Your task to perform on an android device: Add razer kraken to the cart on ebay.com, then select checkout. Image 0: 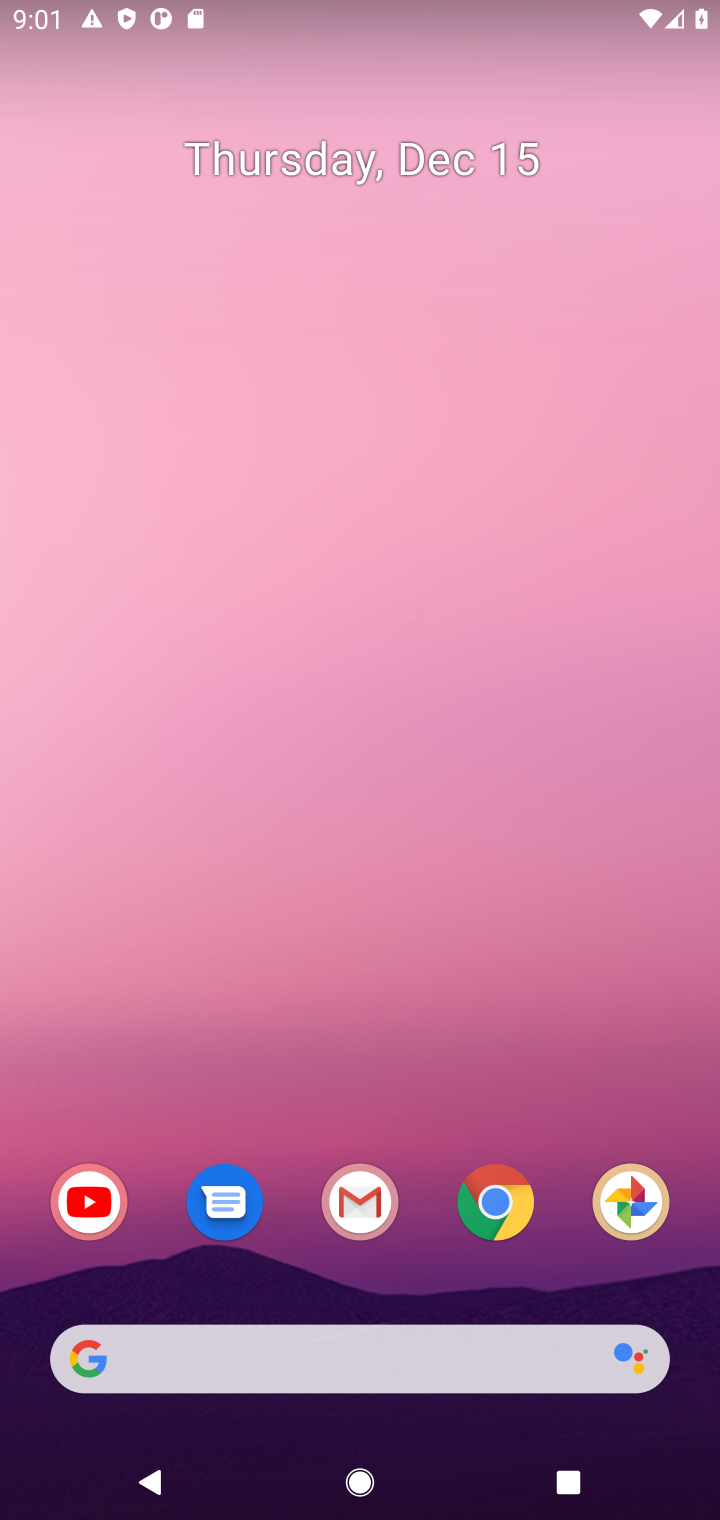
Step 0: click (479, 1212)
Your task to perform on an android device: Add razer kraken to the cart on ebay.com, then select checkout. Image 1: 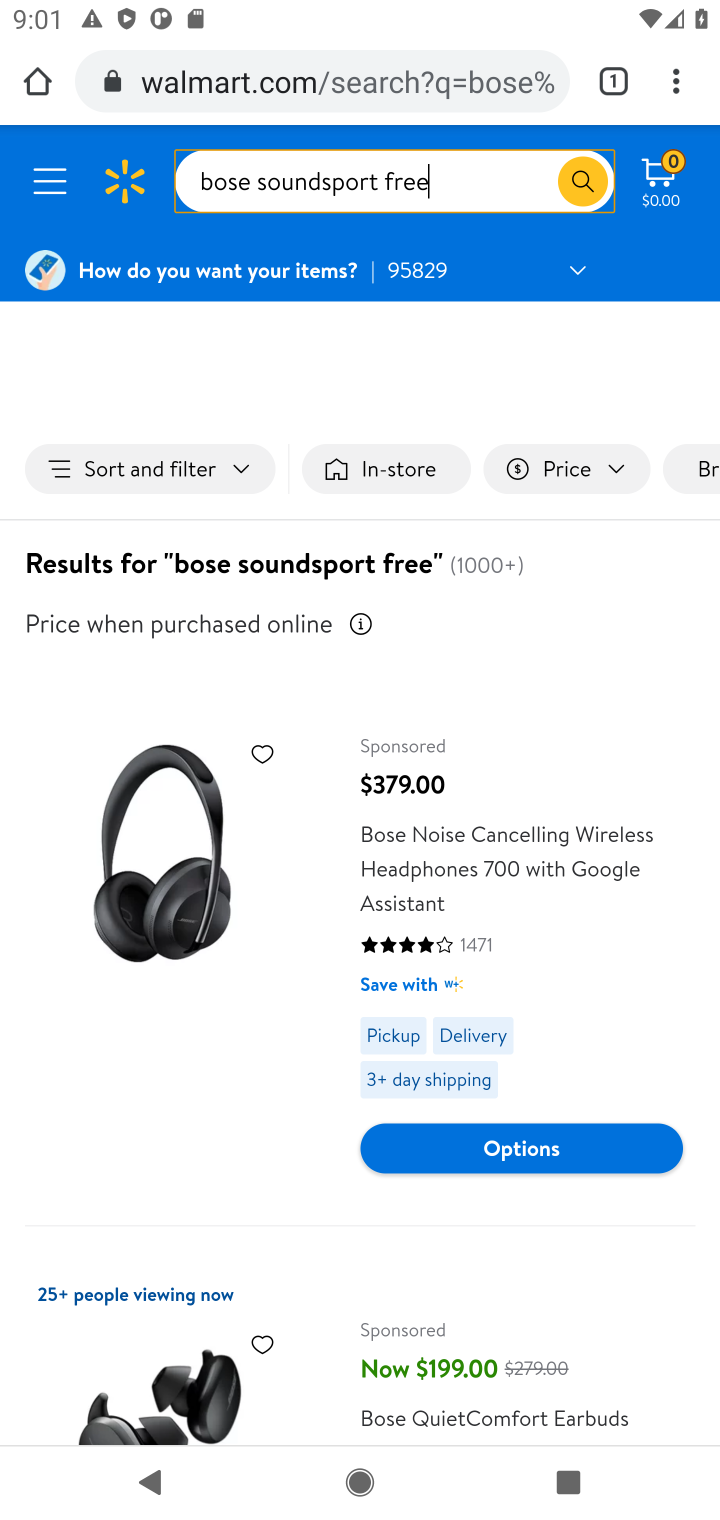
Step 1: click (305, 89)
Your task to perform on an android device: Add razer kraken to the cart on ebay.com, then select checkout. Image 2: 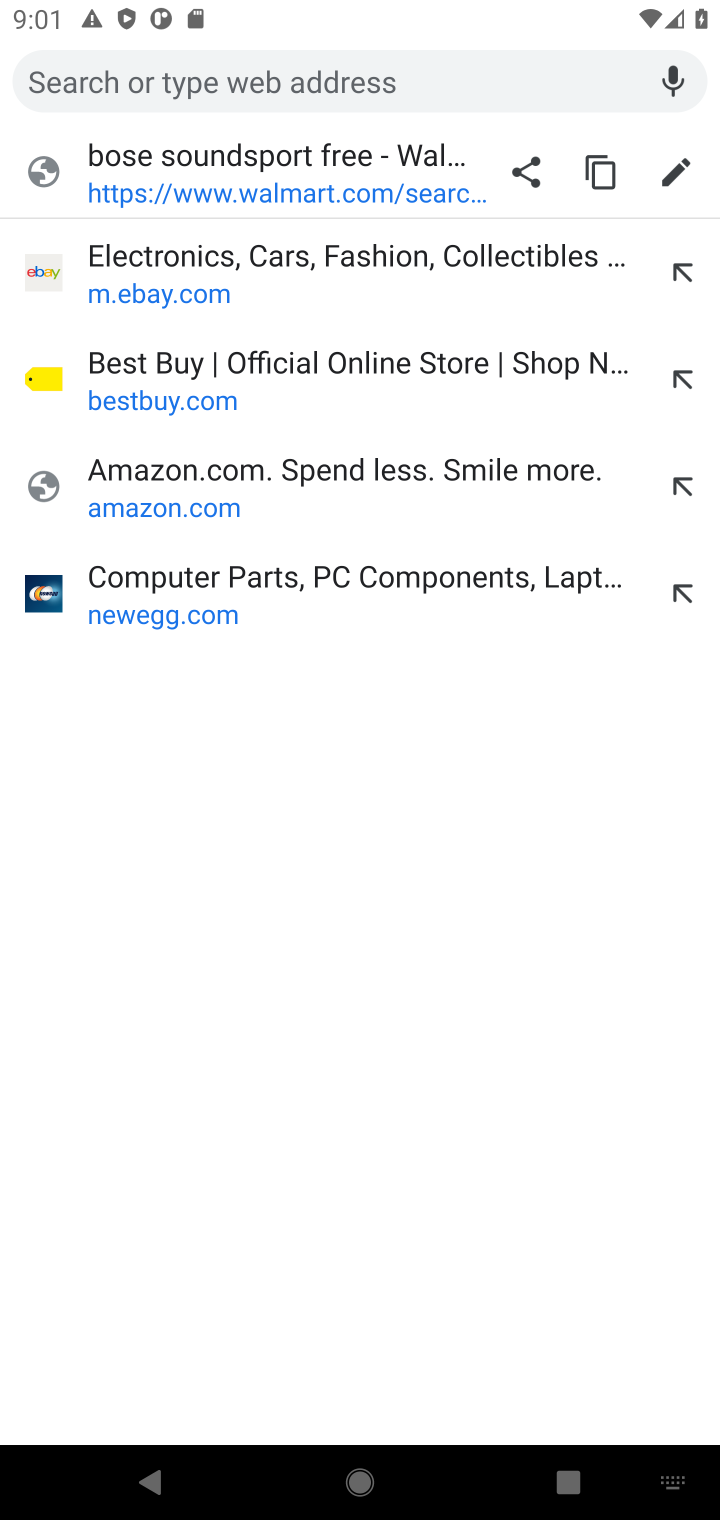
Step 2: click (189, 295)
Your task to perform on an android device: Add razer kraken to the cart on ebay.com, then select checkout. Image 3: 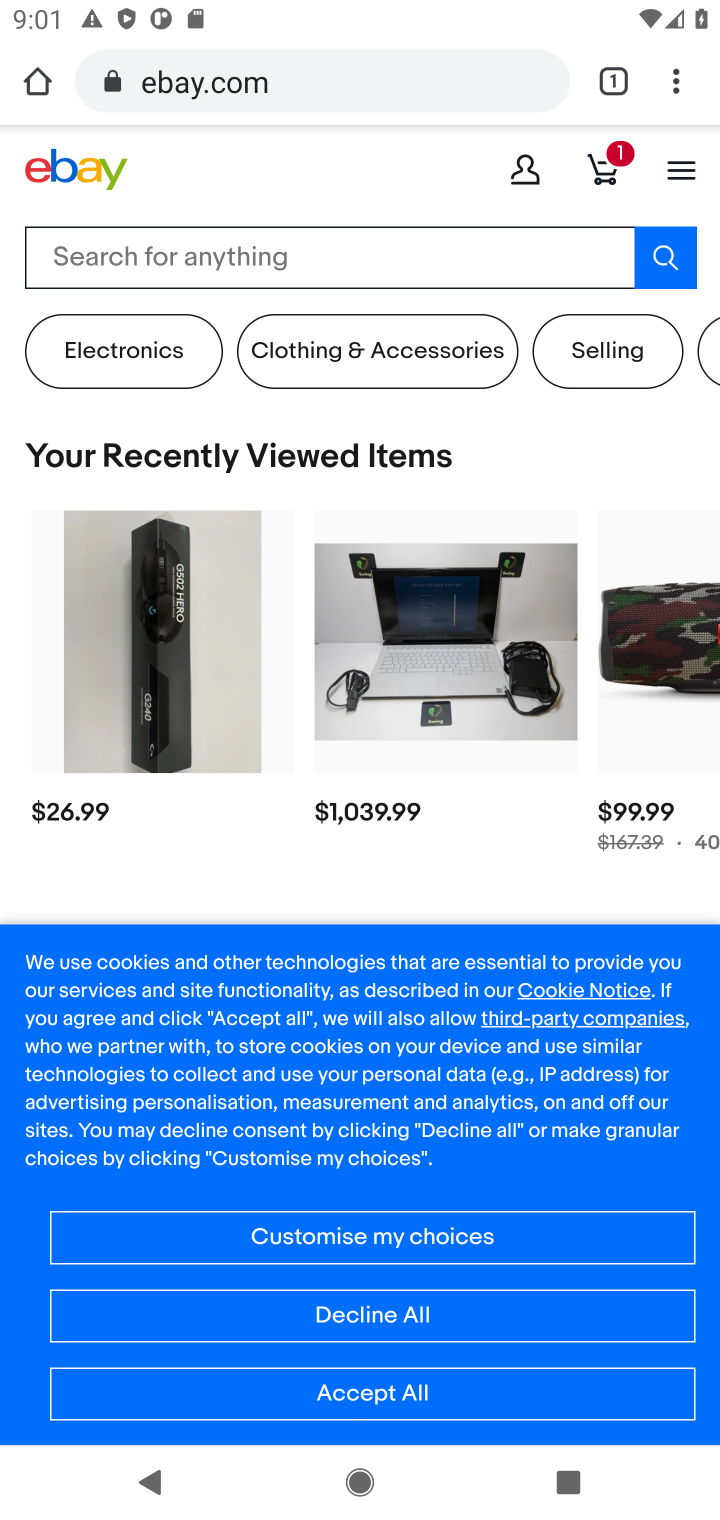
Step 3: click (181, 249)
Your task to perform on an android device: Add razer kraken to the cart on ebay.com, then select checkout. Image 4: 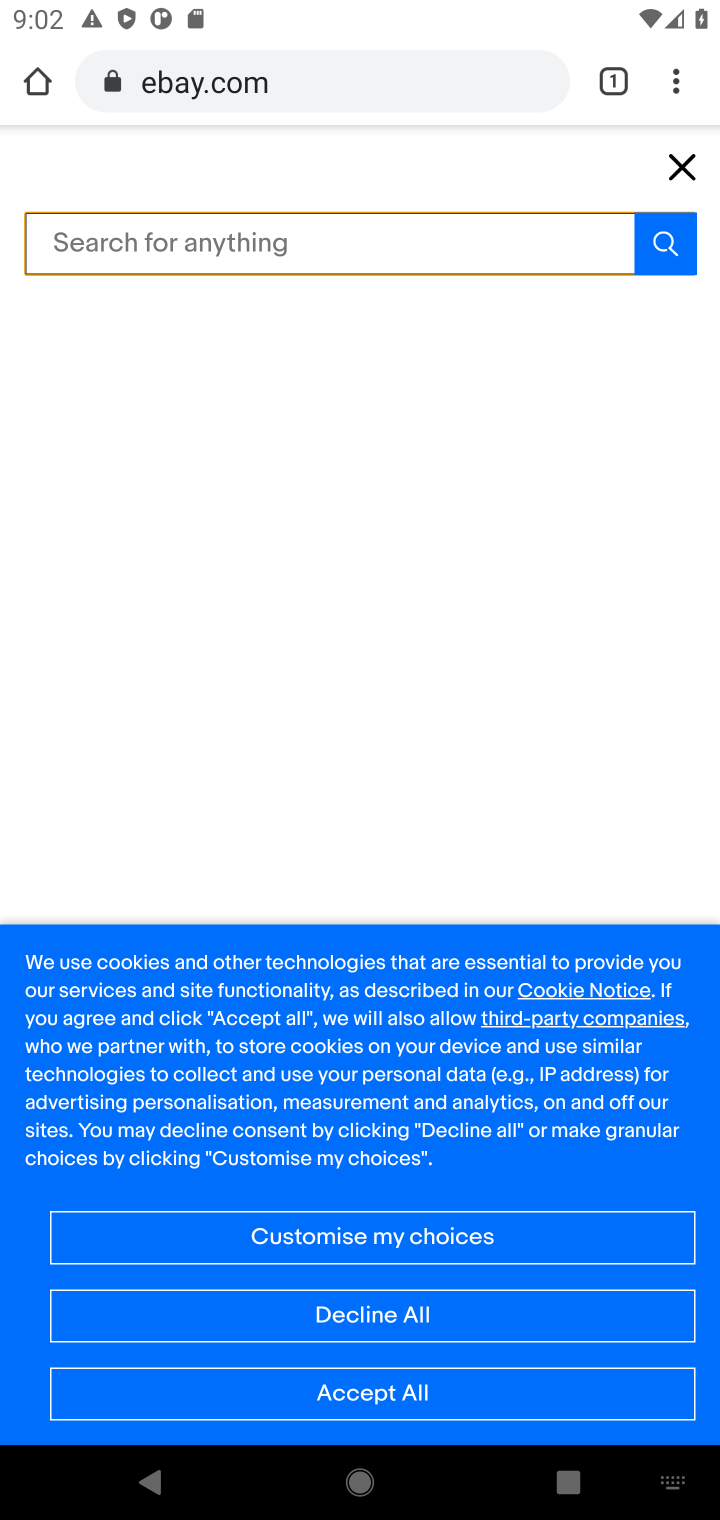
Step 4: type "razer kraken "
Your task to perform on an android device: Add razer kraken to the cart on ebay.com, then select checkout. Image 5: 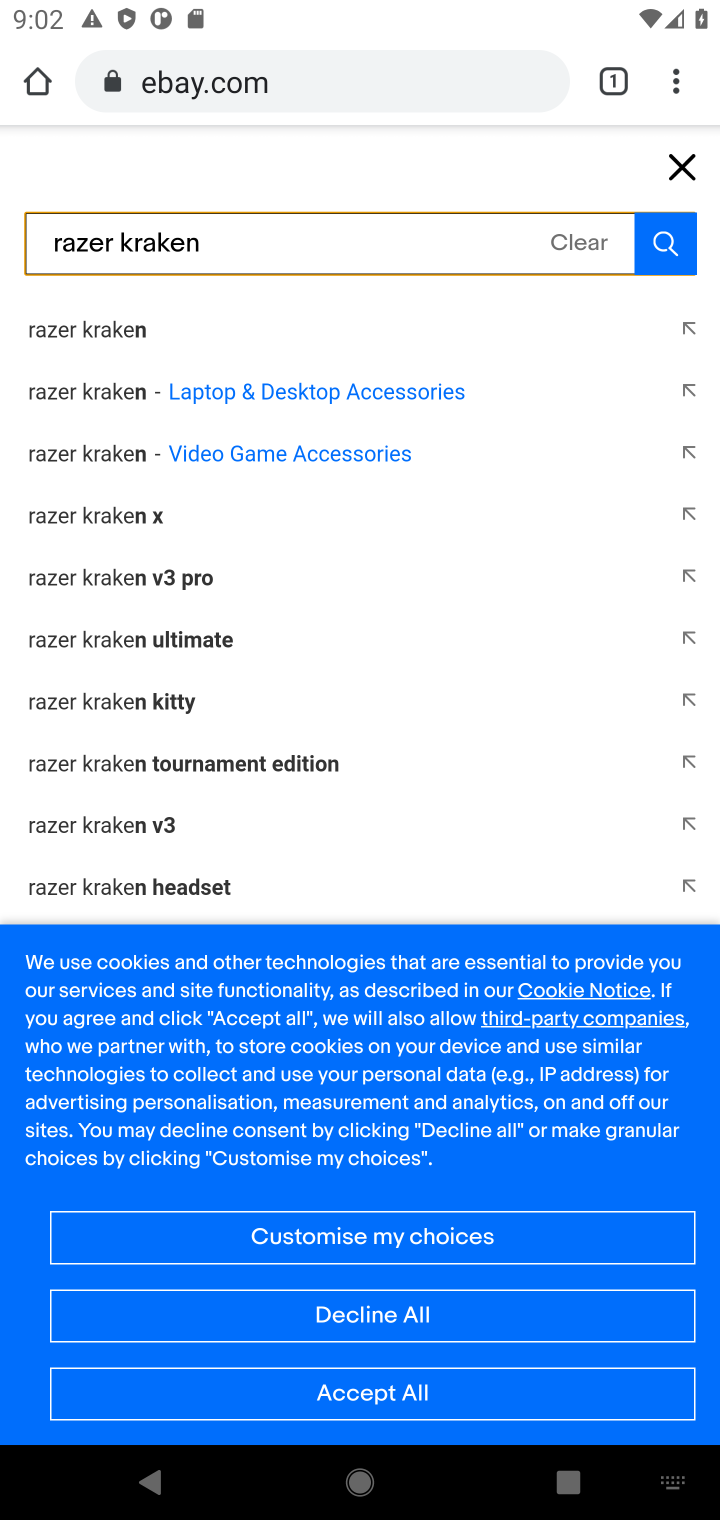
Step 5: click (111, 340)
Your task to perform on an android device: Add razer kraken to the cart on ebay.com, then select checkout. Image 6: 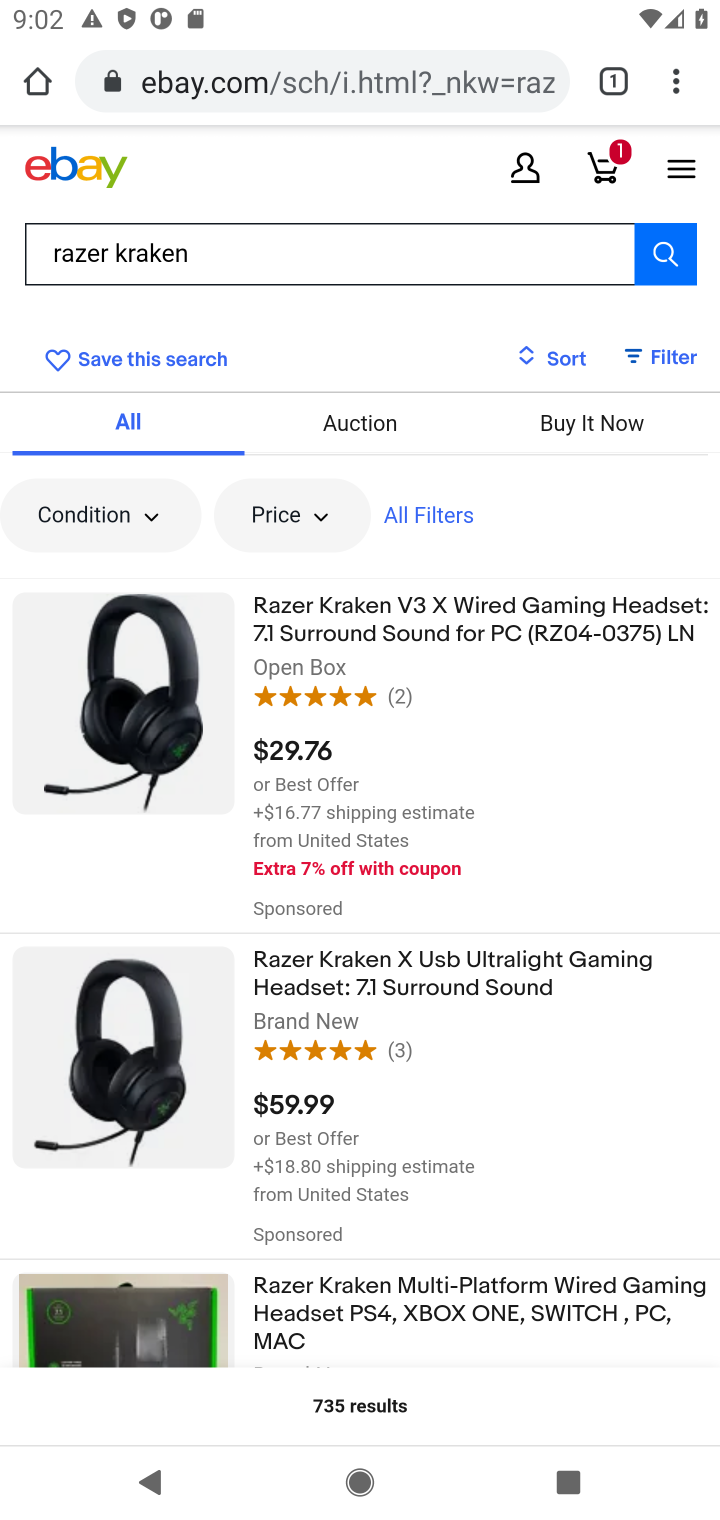
Step 6: click (328, 649)
Your task to perform on an android device: Add razer kraken to the cart on ebay.com, then select checkout. Image 7: 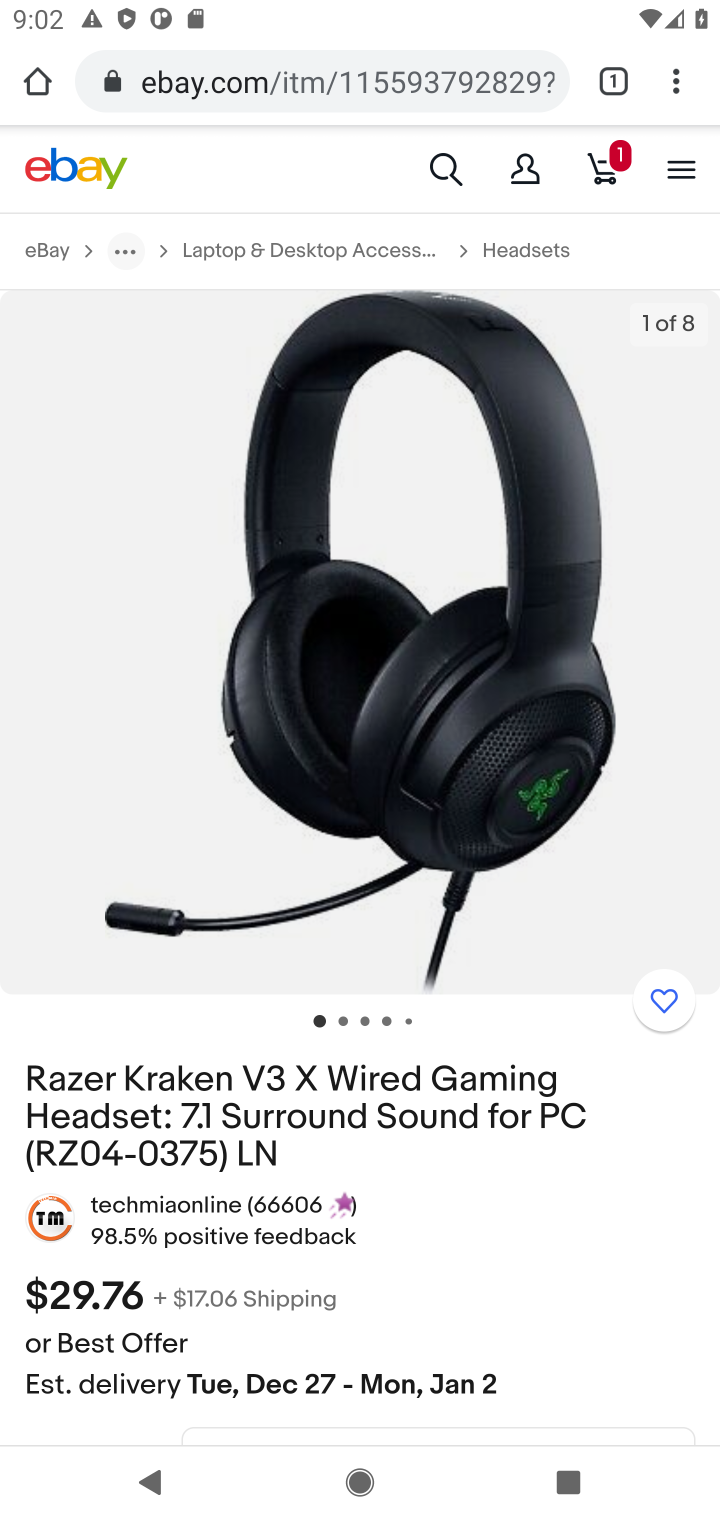
Step 7: drag from (267, 1166) to (255, 627)
Your task to perform on an android device: Add razer kraken to the cart on ebay.com, then select checkout. Image 8: 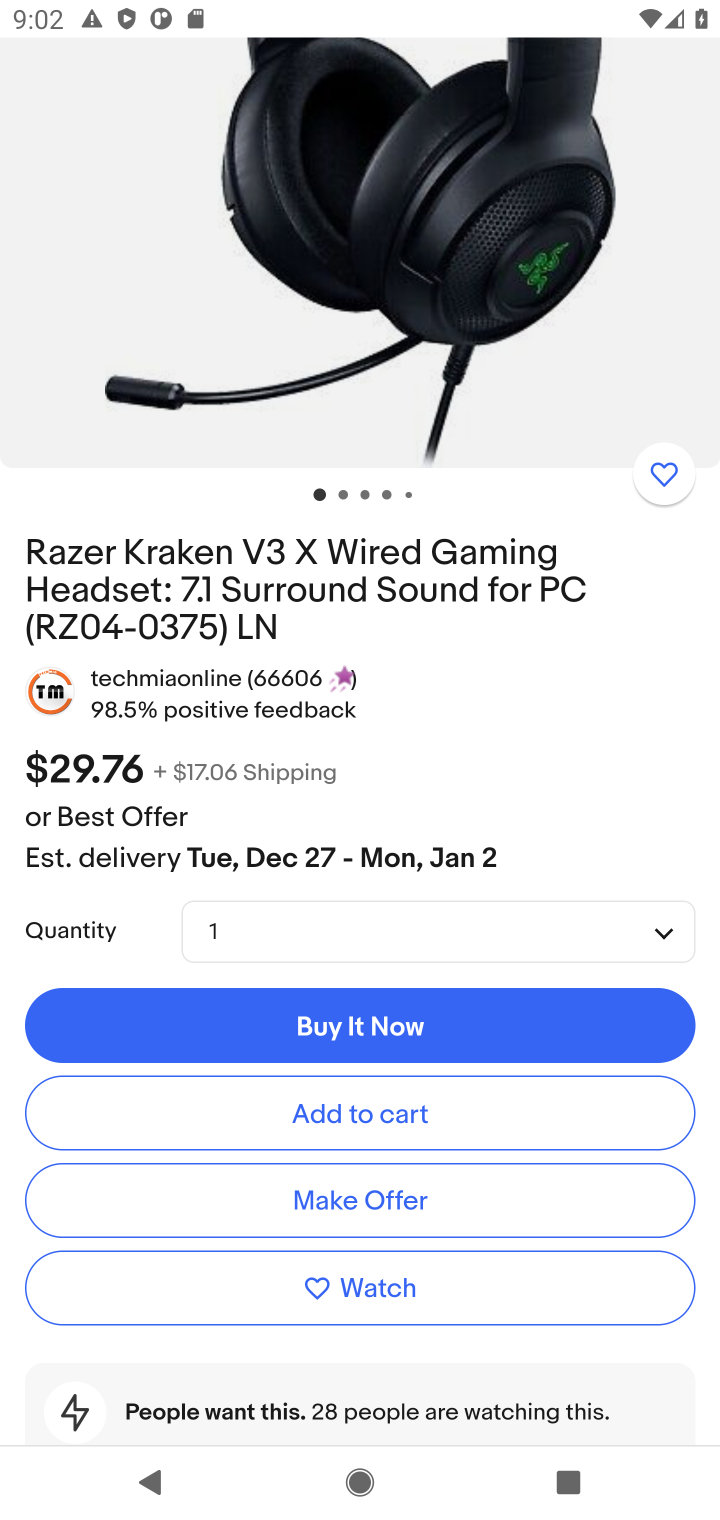
Step 8: click (297, 1118)
Your task to perform on an android device: Add razer kraken to the cart on ebay.com, then select checkout. Image 9: 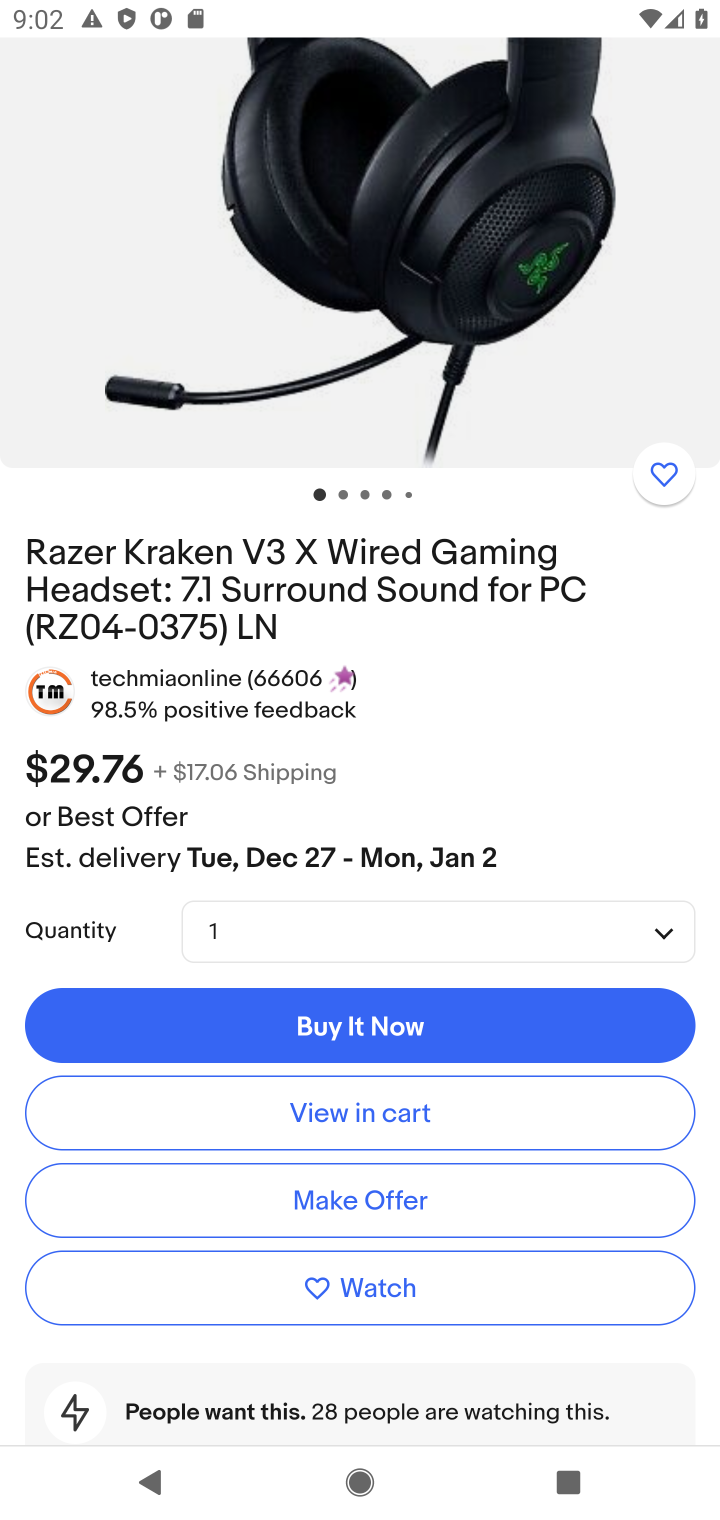
Step 9: click (297, 1118)
Your task to perform on an android device: Add razer kraken to the cart on ebay.com, then select checkout. Image 10: 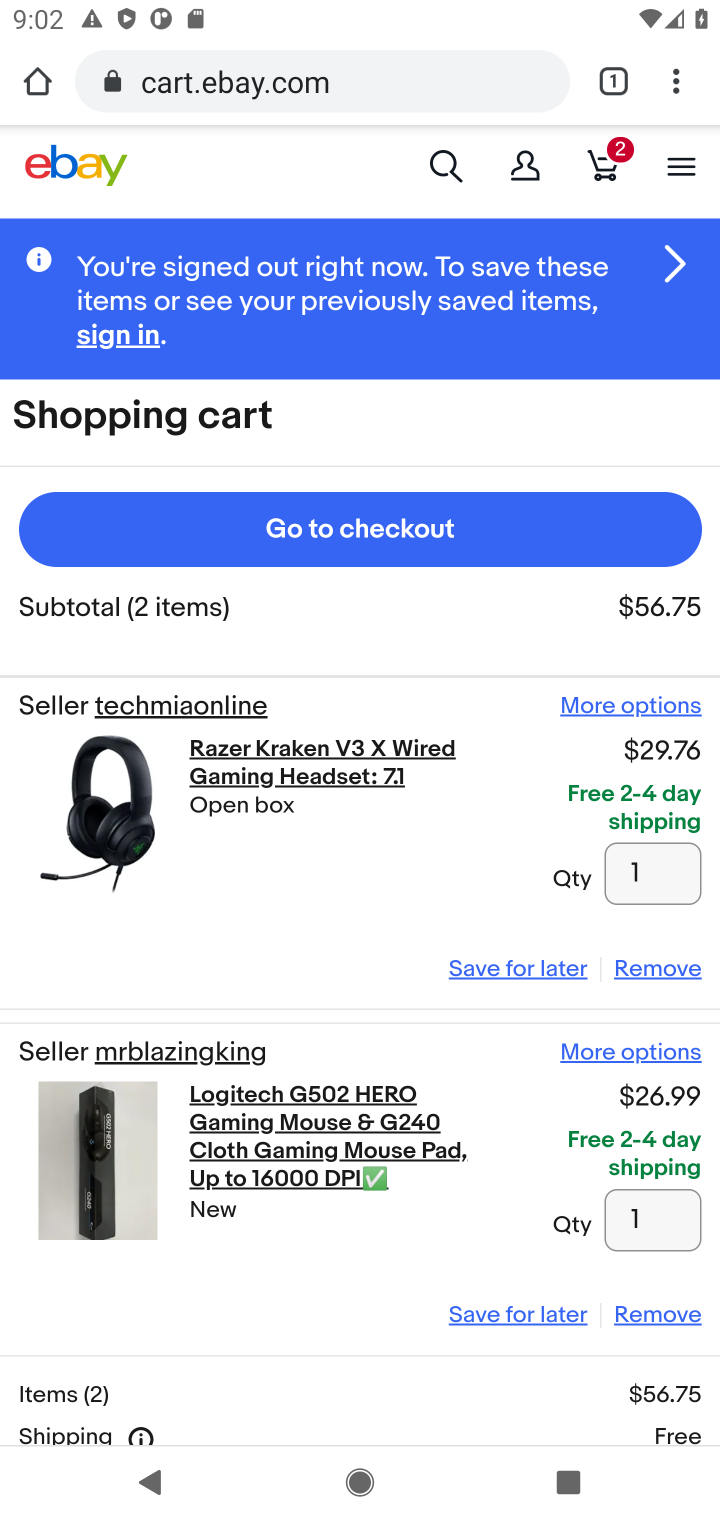
Step 10: click (334, 541)
Your task to perform on an android device: Add razer kraken to the cart on ebay.com, then select checkout. Image 11: 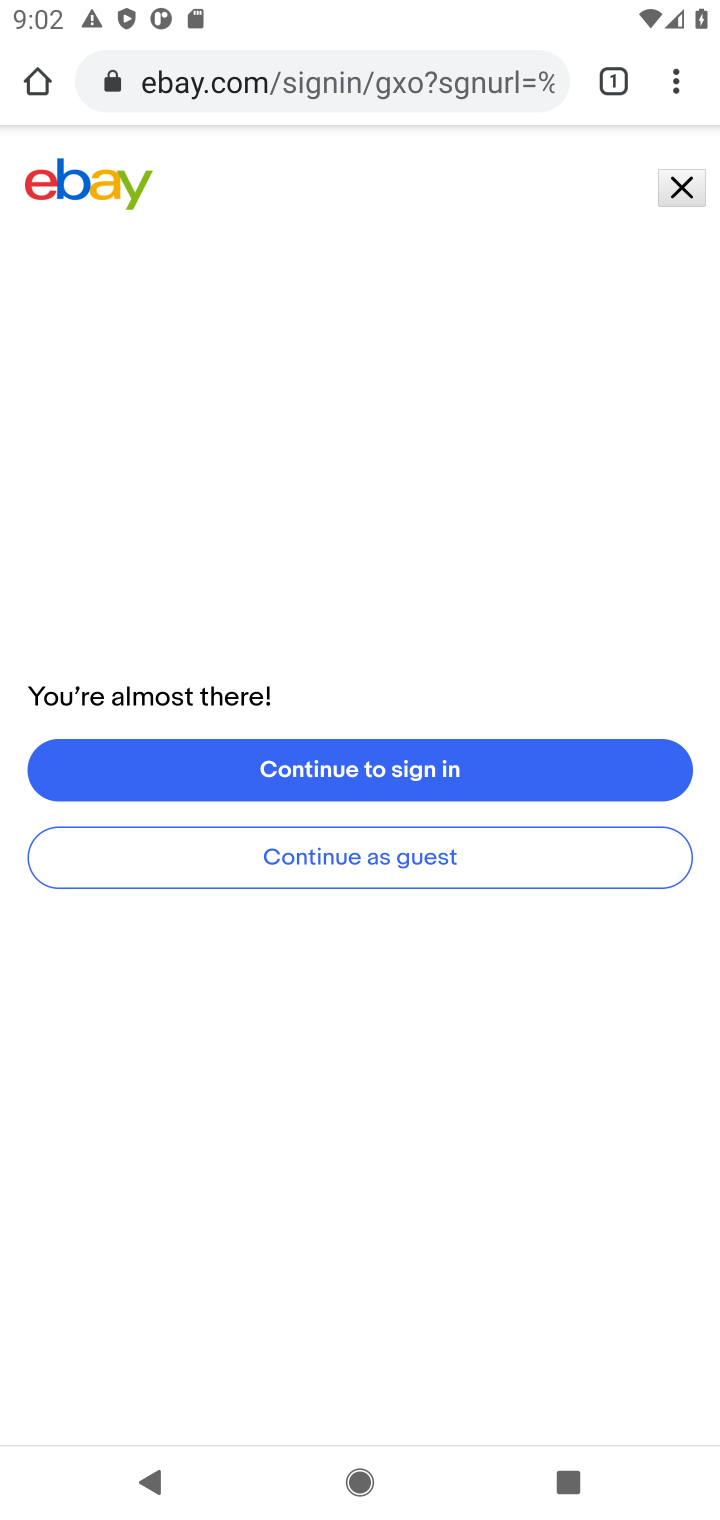
Step 11: task complete